Your task to perform on an android device: Check the news Image 0: 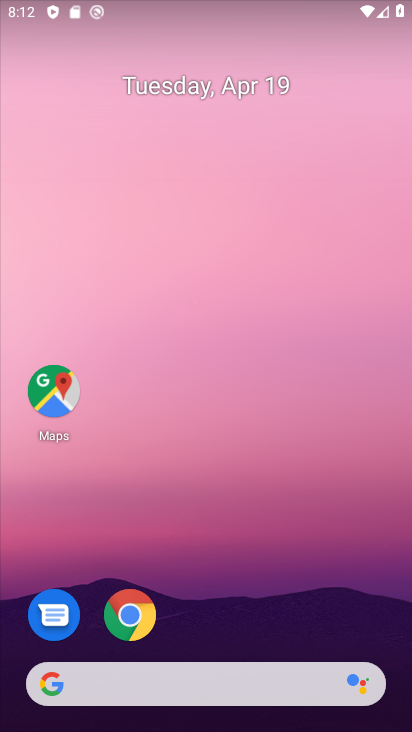
Step 0: drag from (336, 520) to (284, 20)
Your task to perform on an android device: Check the news Image 1: 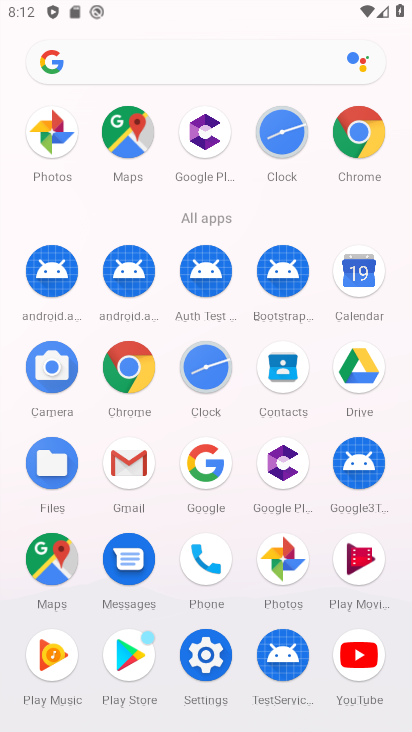
Step 1: drag from (2, 447) to (9, 209)
Your task to perform on an android device: Check the news Image 2: 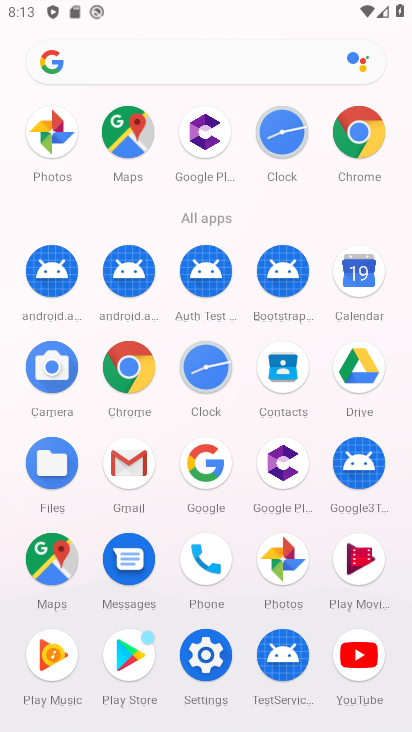
Step 2: click (208, 463)
Your task to perform on an android device: Check the news Image 3: 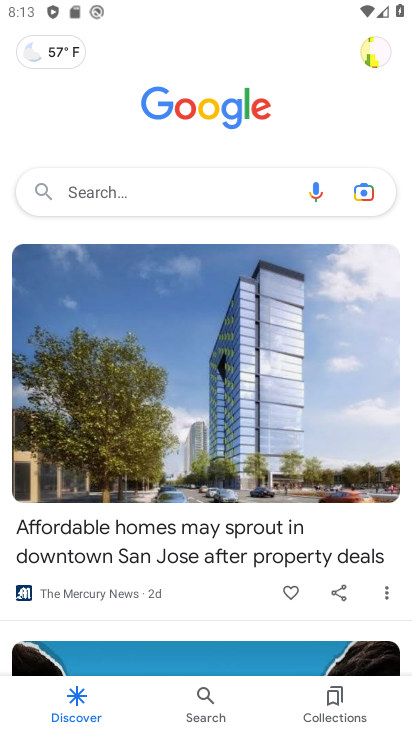
Step 3: task complete